Your task to perform on an android device: Open ESPN.com Image 0: 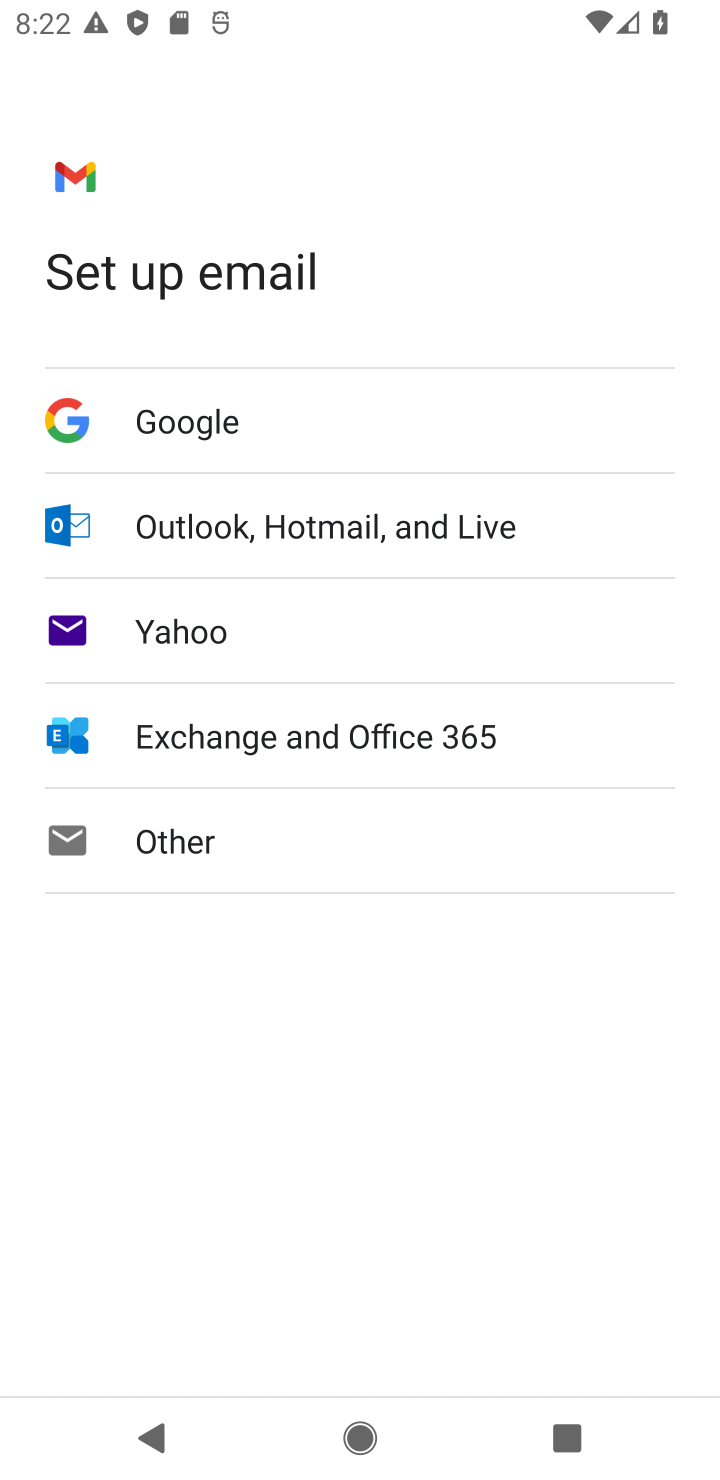
Step 0: press home button
Your task to perform on an android device: Open ESPN.com Image 1: 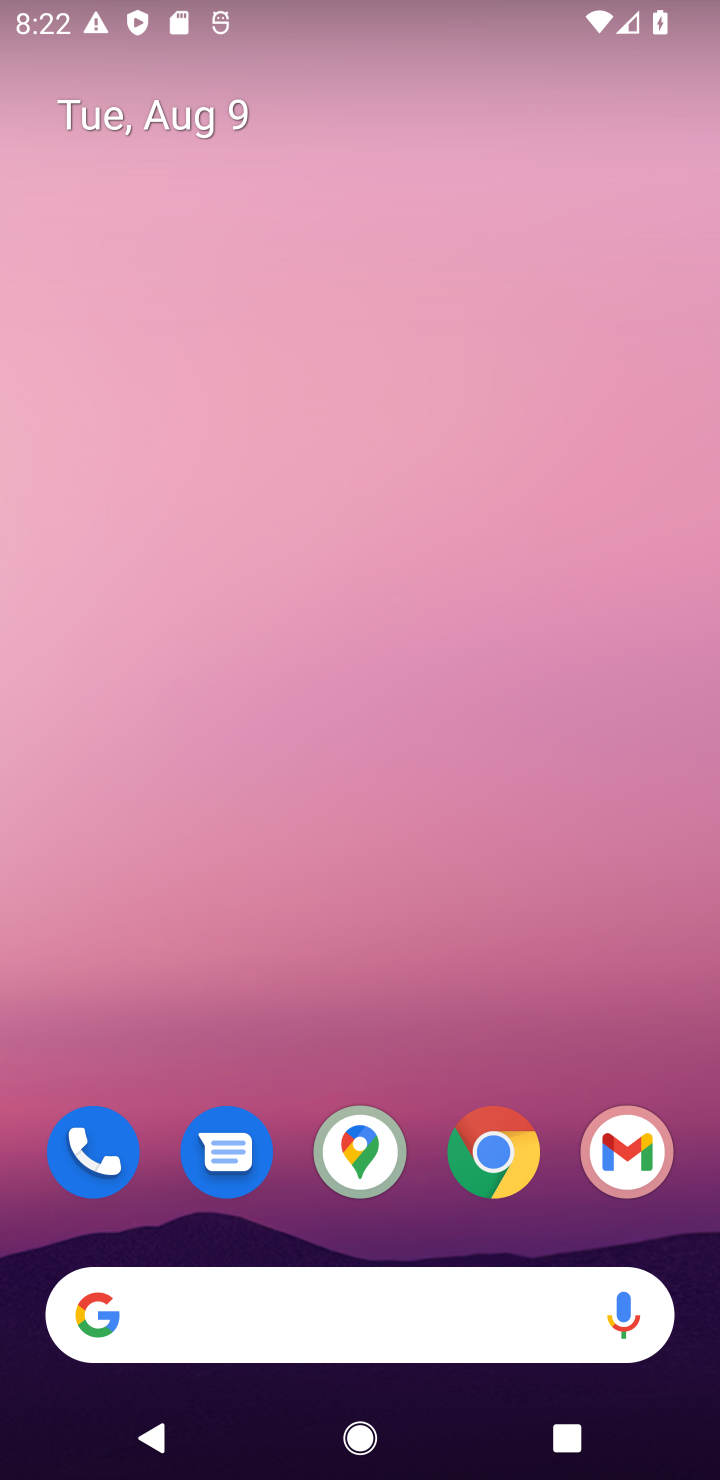
Step 1: click (481, 1167)
Your task to perform on an android device: Open ESPN.com Image 2: 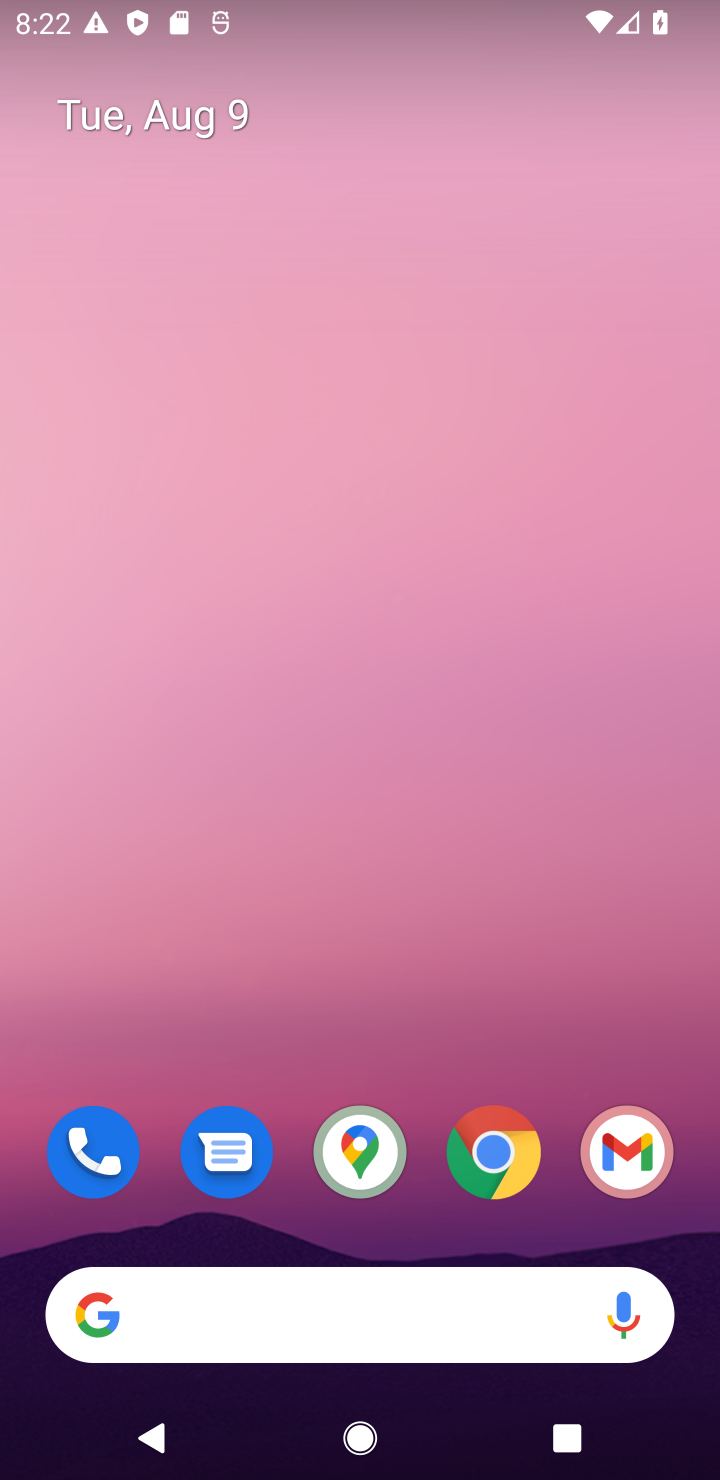
Step 2: click (481, 1167)
Your task to perform on an android device: Open ESPN.com Image 3: 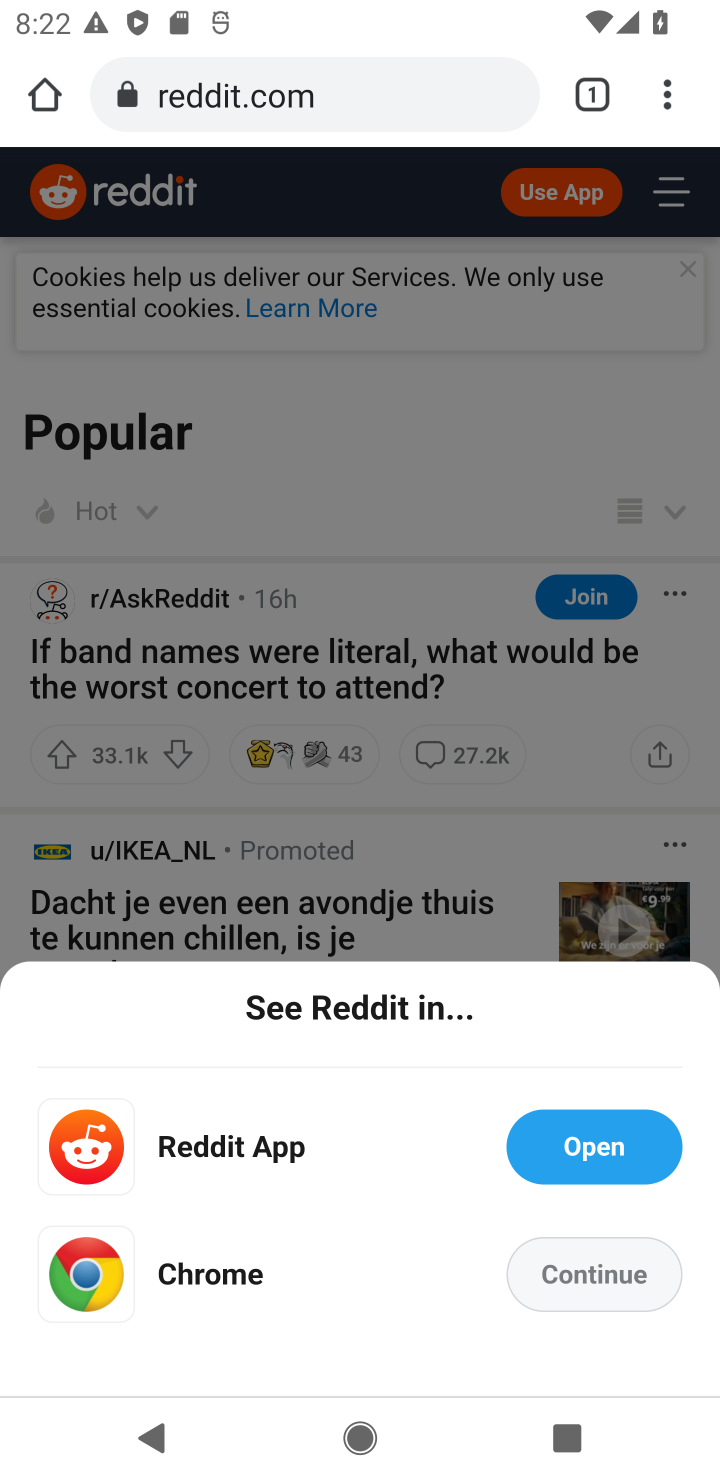
Step 3: click (620, 94)
Your task to perform on an android device: Open ESPN.com Image 4: 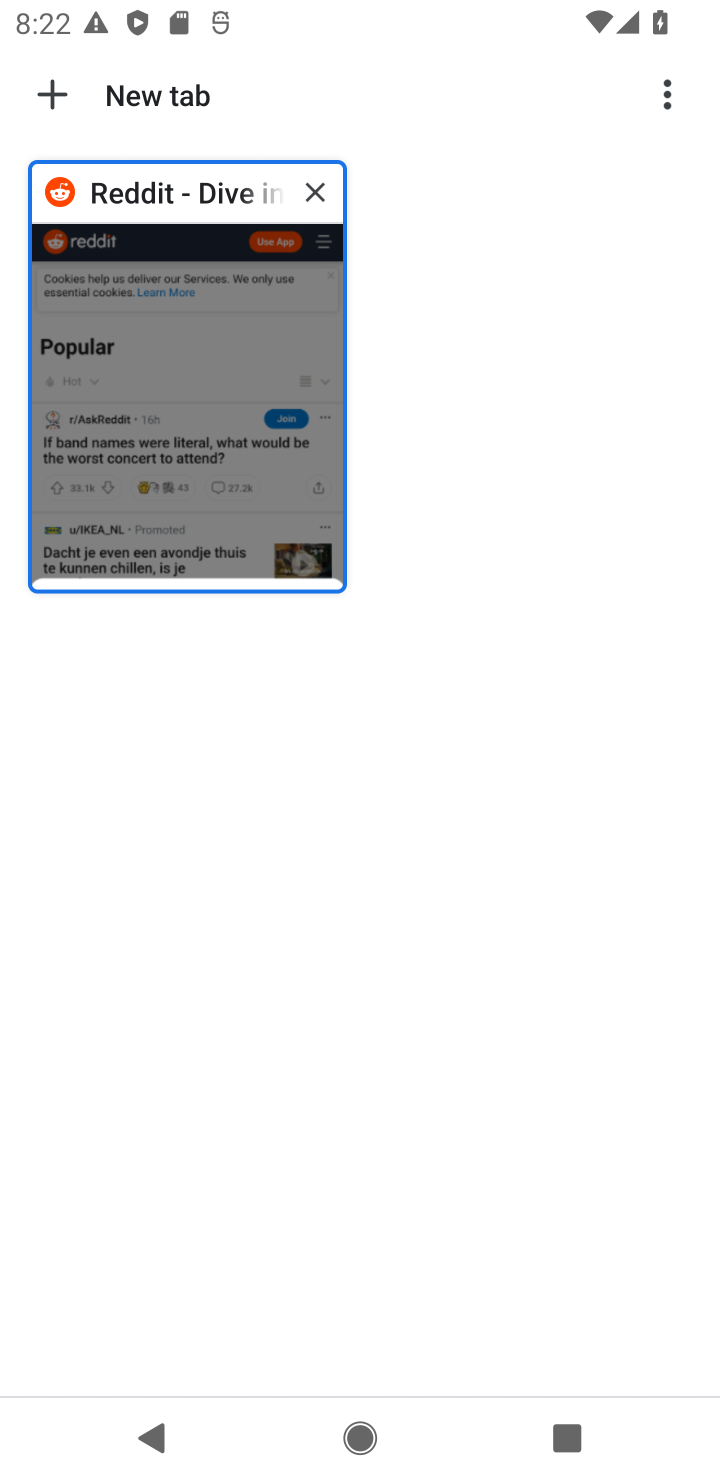
Step 4: click (36, 96)
Your task to perform on an android device: Open ESPN.com Image 5: 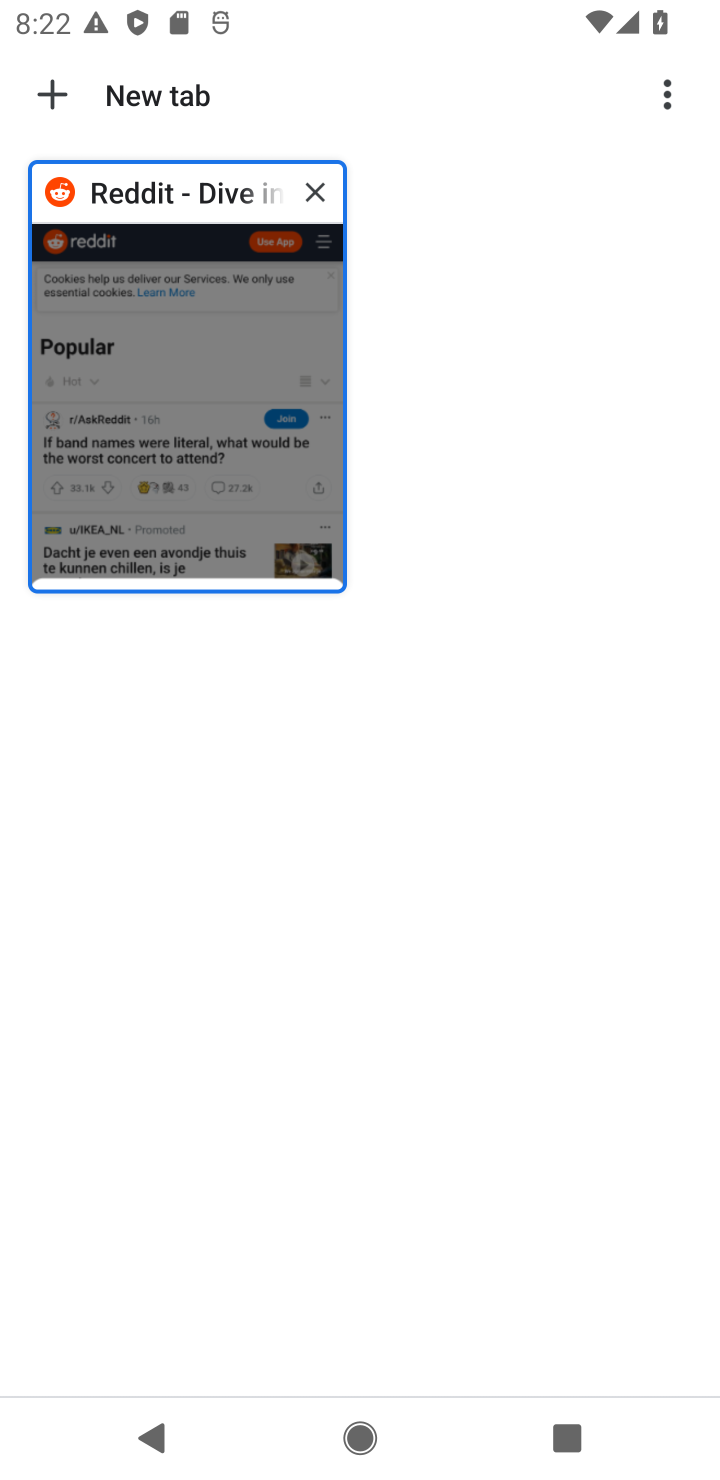
Step 5: click (36, 96)
Your task to perform on an android device: Open ESPN.com Image 6: 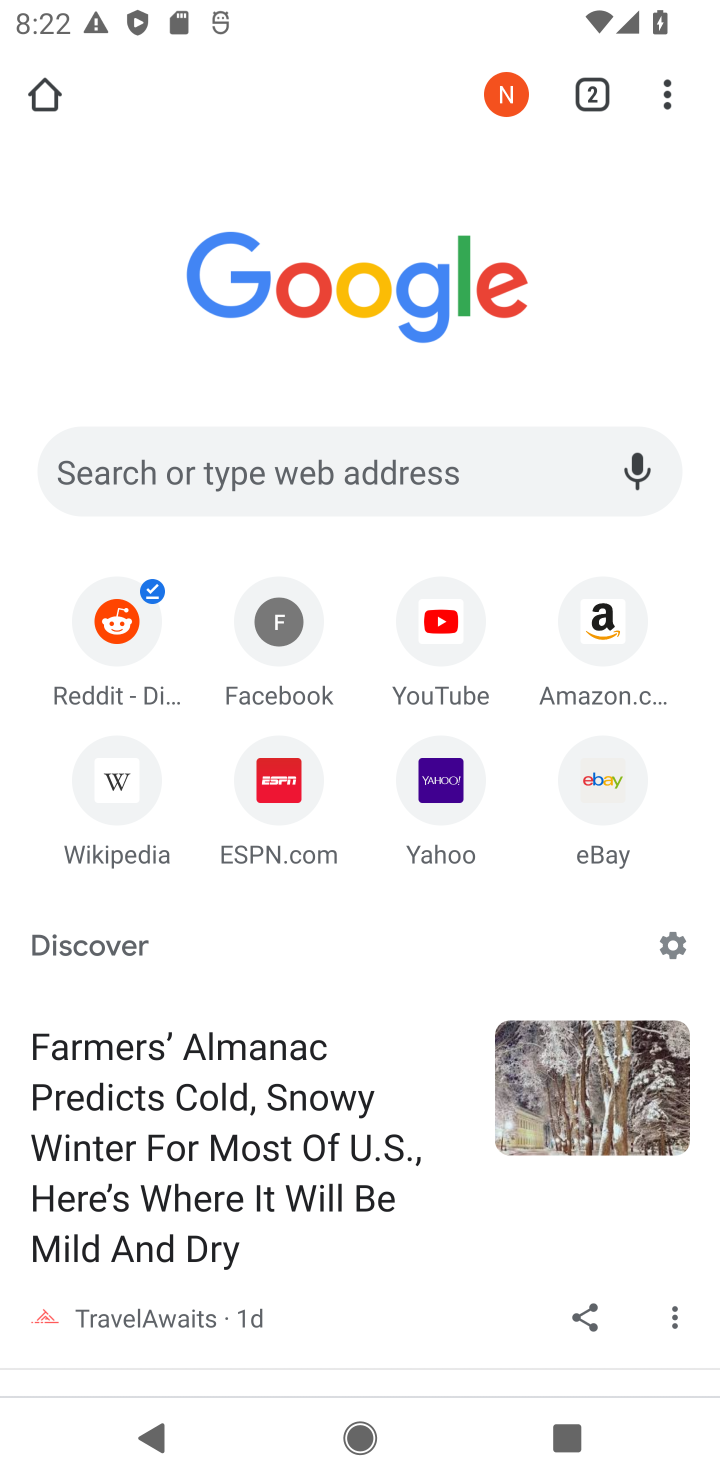
Step 6: click (302, 773)
Your task to perform on an android device: Open ESPN.com Image 7: 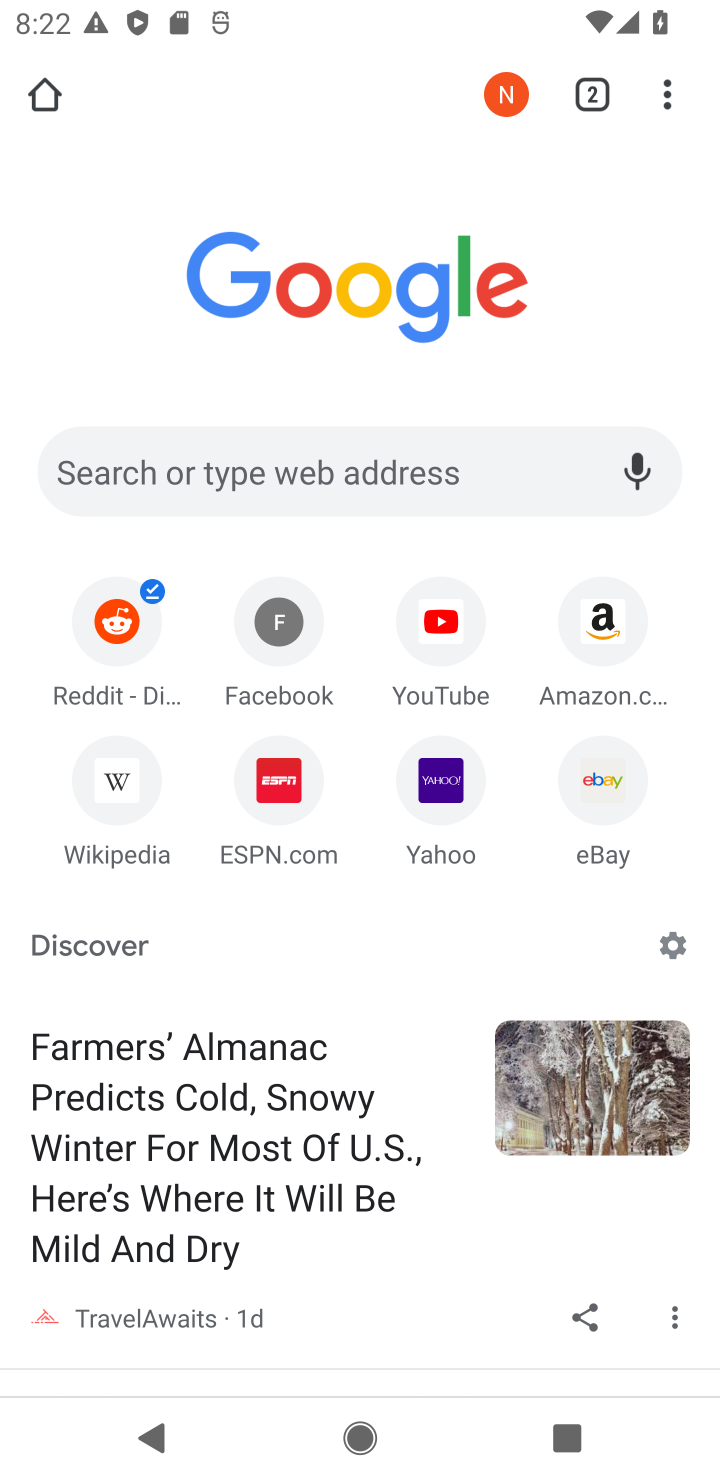
Step 7: click (302, 773)
Your task to perform on an android device: Open ESPN.com Image 8: 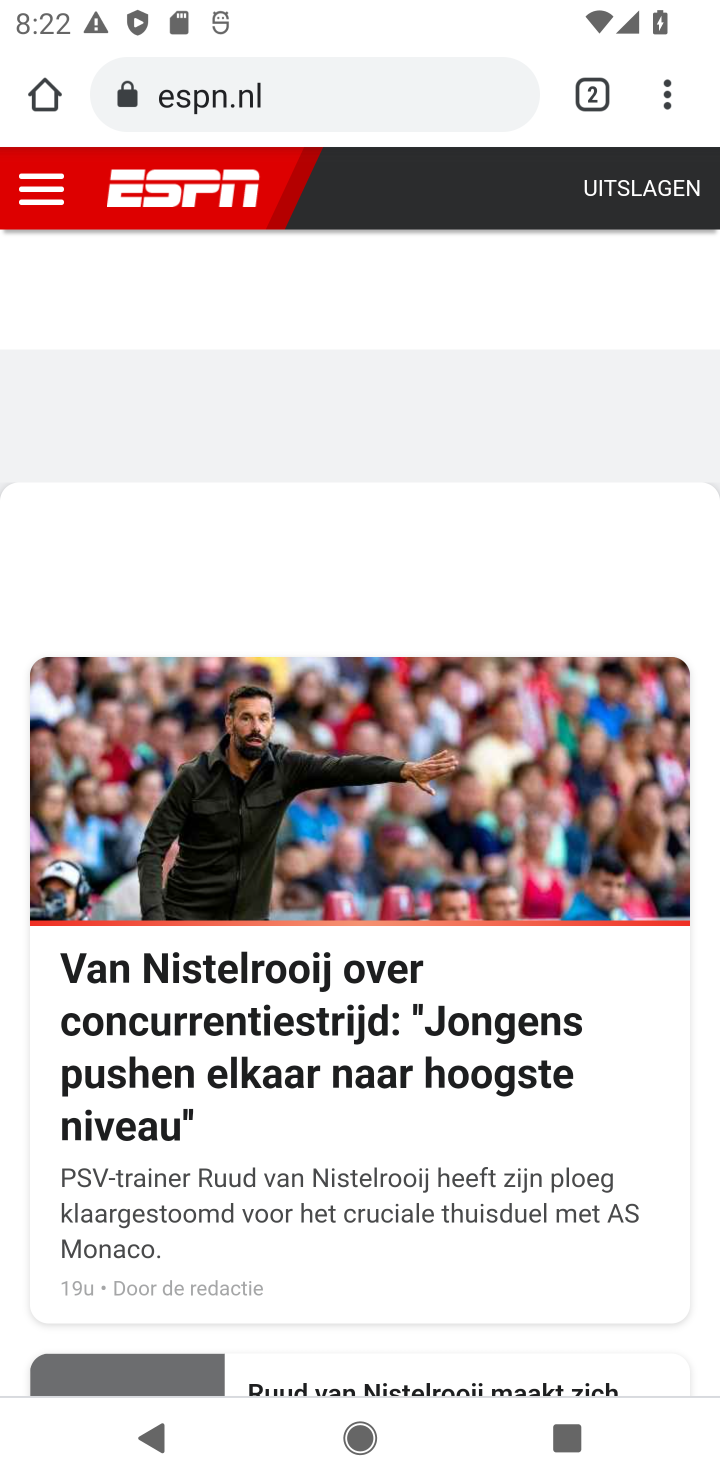
Step 8: click (302, 773)
Your task to perform on an android device: Open ESPN.com Image 9: 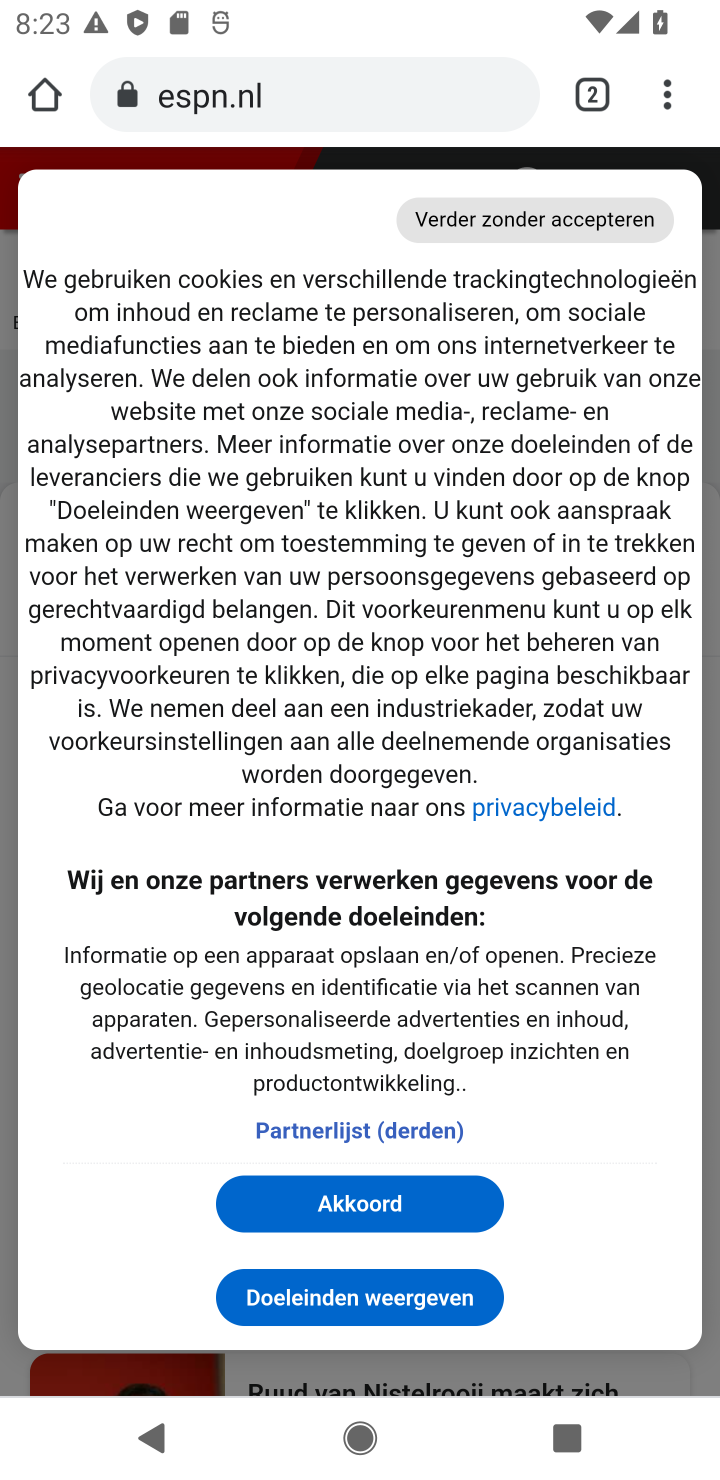
Step 9: task complete